Your task to perform on an android device: toggle airplane mode Image 0: 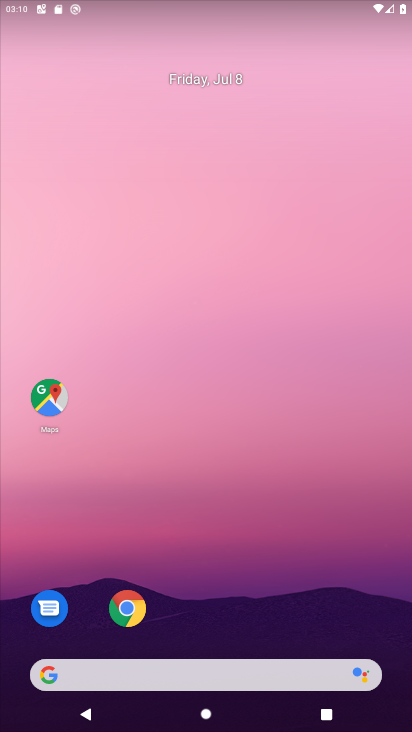
Step 0: drag from (217, 687) to (159, 426)
Your task to perform on an android device: toggle airplane mode Image 1: 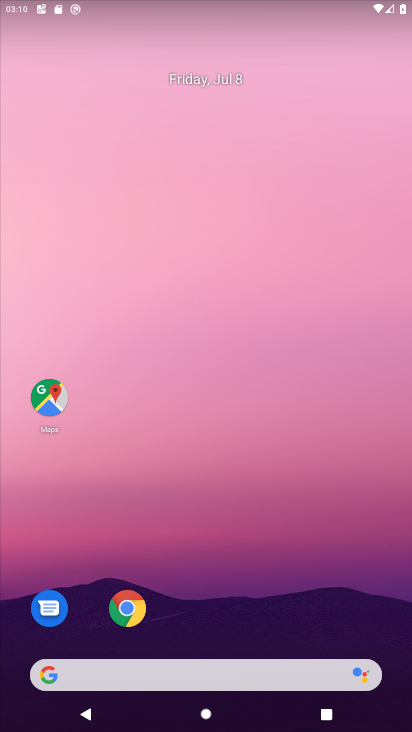
Step 1: drag from (192, 668) to (153, 454)
Your task to perform on an android device: toggle airplane mode Image 2: 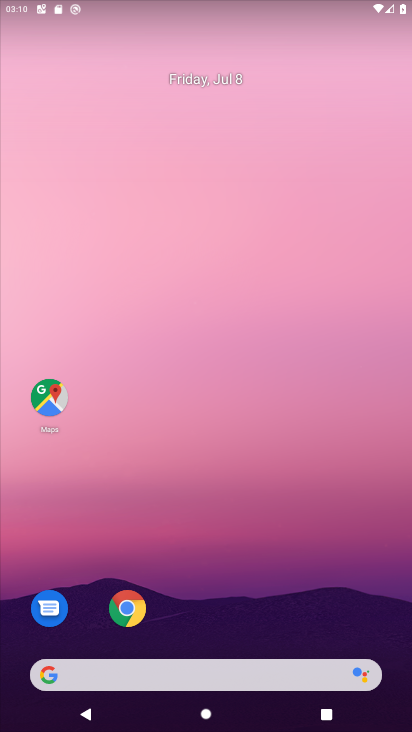
Step 2: drag from (230, 630) to (179, 287)
Your task to perform on an android device: toggle airplane mode Image 3: 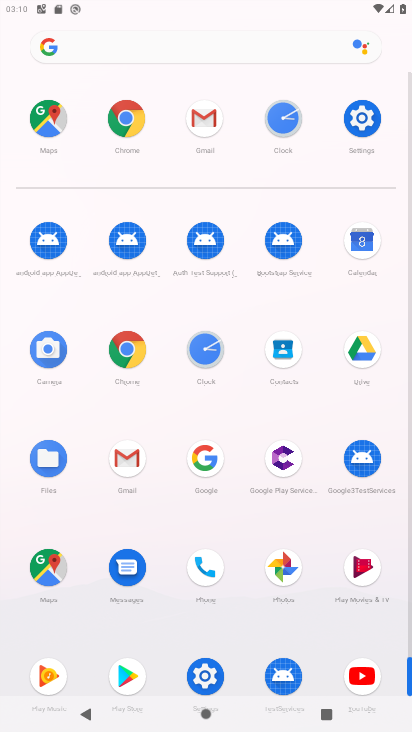
Step 3: click (355, 114)
Your task to perform on an android device: toggle airplane mode Image 4: 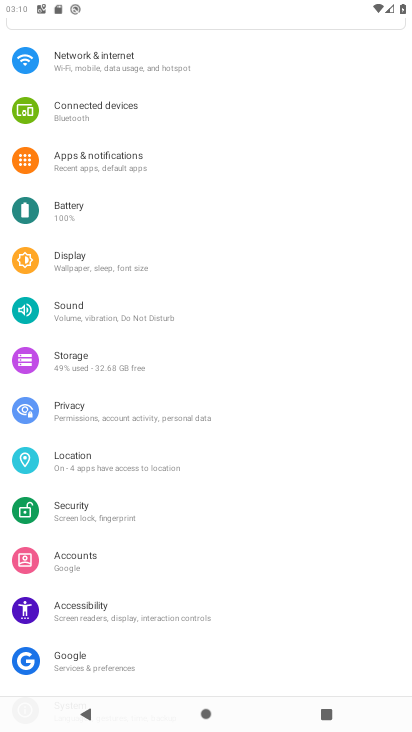
Step 4: click (105, 58)
Your task to perform on an android device: toggle airplane mode Image 5: 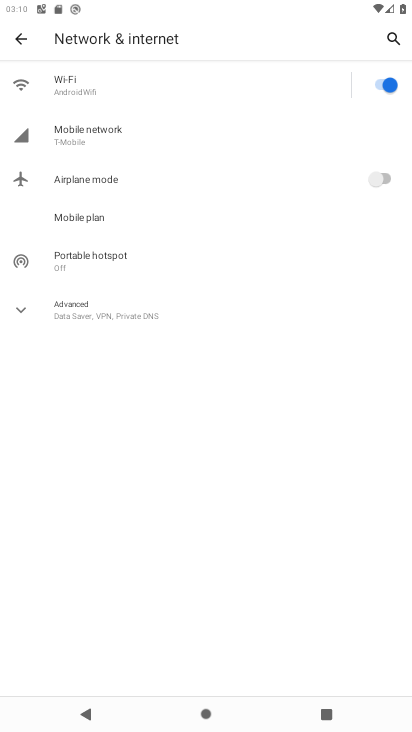
Step 5: click (389, 183)
Your task to perform on an android device: toggle airplane mode Image 6: 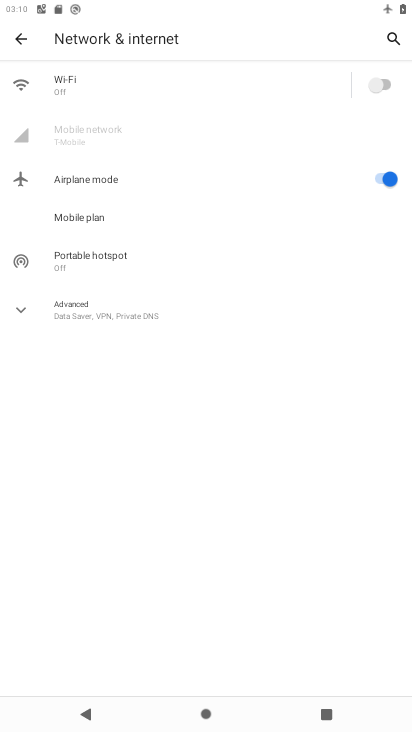
Step 6: task complete